Your task to perform on an android device: Empty the shopping cart on newegg.com. Search for "razer blackwidow" on newegg.com, select the first entry, and add it to the cart. Image 0: 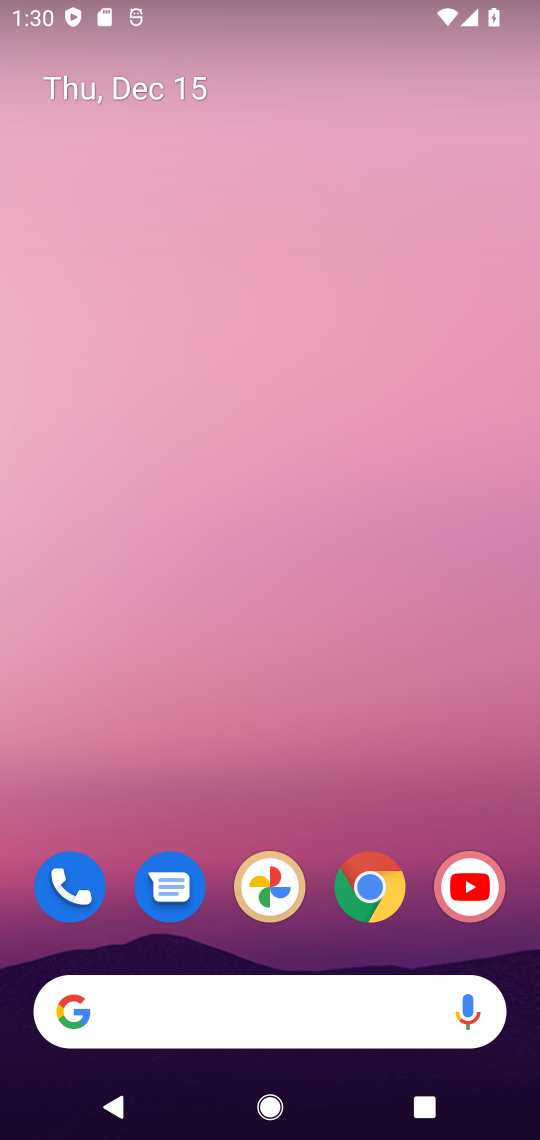
Step 0: click (379, 908)
Your task to perform on an android device: Empty the shopping cart on newegg.com. Search for "razer blackwidow" on newegg.com, select the first entry, and add it to the cart. Image 1: 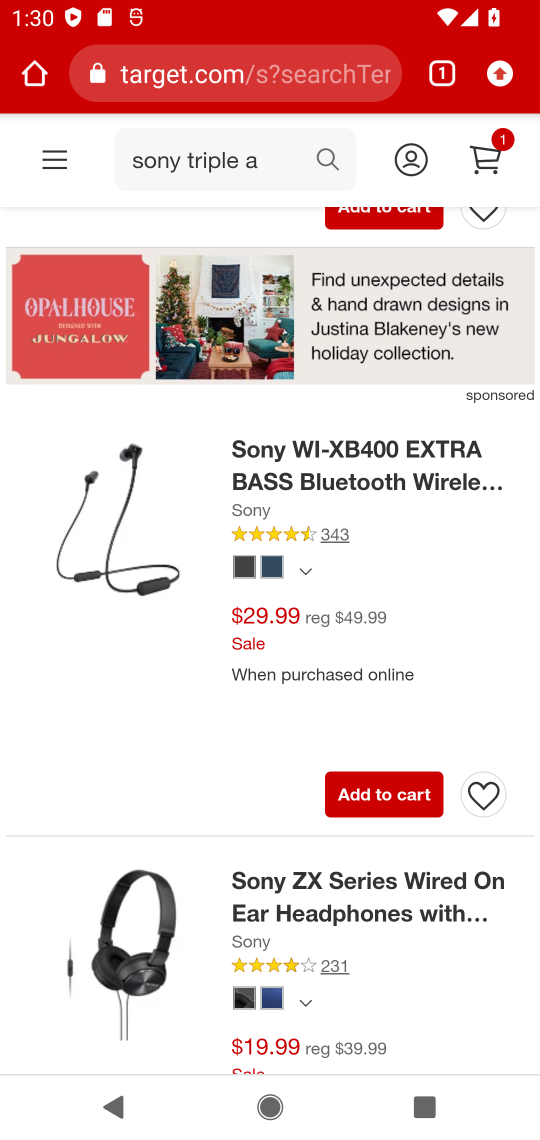
Step 1: click (210, 91)
Your task to perform on an android device: Empty the shopping cart on newegg.com. Search for "razer blackwidow" on newegg.com, select the first entry, and add it to the cart. Image 2: 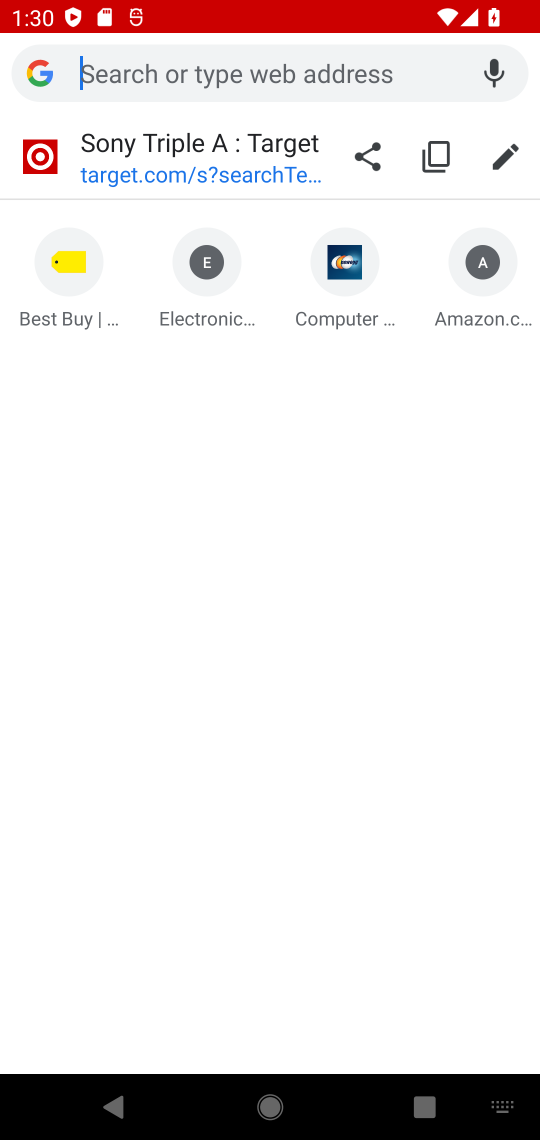
Step 2: click (332, 315)
Your task to perform on an android device: Empty the shopping cart on newegg.com. Search for "razer blackwidow" on newegg.com, select the first entry, and add it to the cart. Image 3: 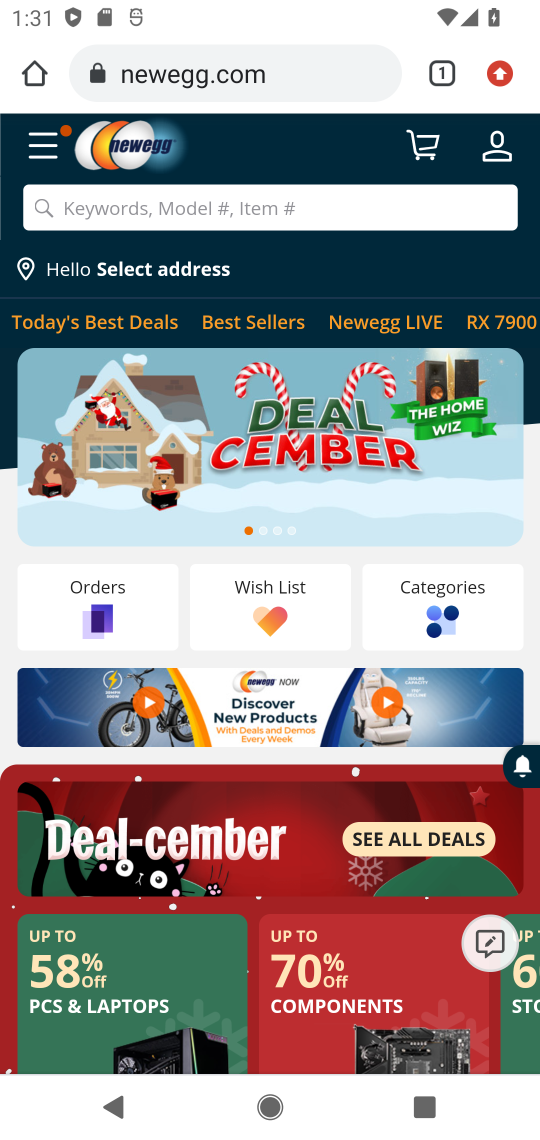
Step 3: click (412, 161)
Your task to perform on an android device: Empty the shopping cart on newegg.com. Search for "razer blackwidow" on newegg.com, select the first entry, and add it to the cart. Image 4: 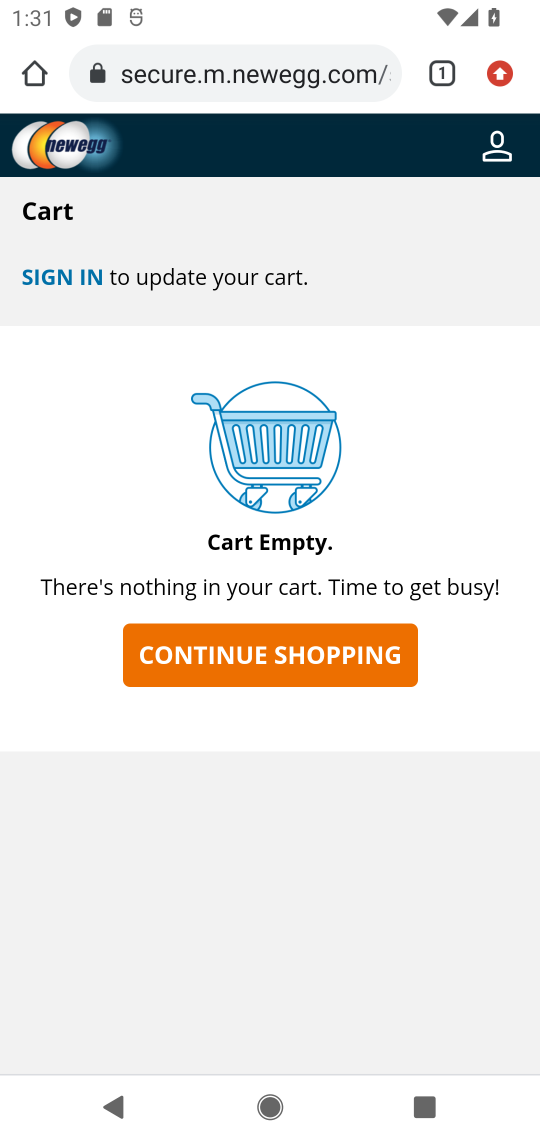
Step 4: click (298, 657)
Your task to perform on an android device: Empty the shopping cart on newegg.com. Search for "razer blackwidow" on newegg.com, select the first entry, and add it to the cart. Image 5: 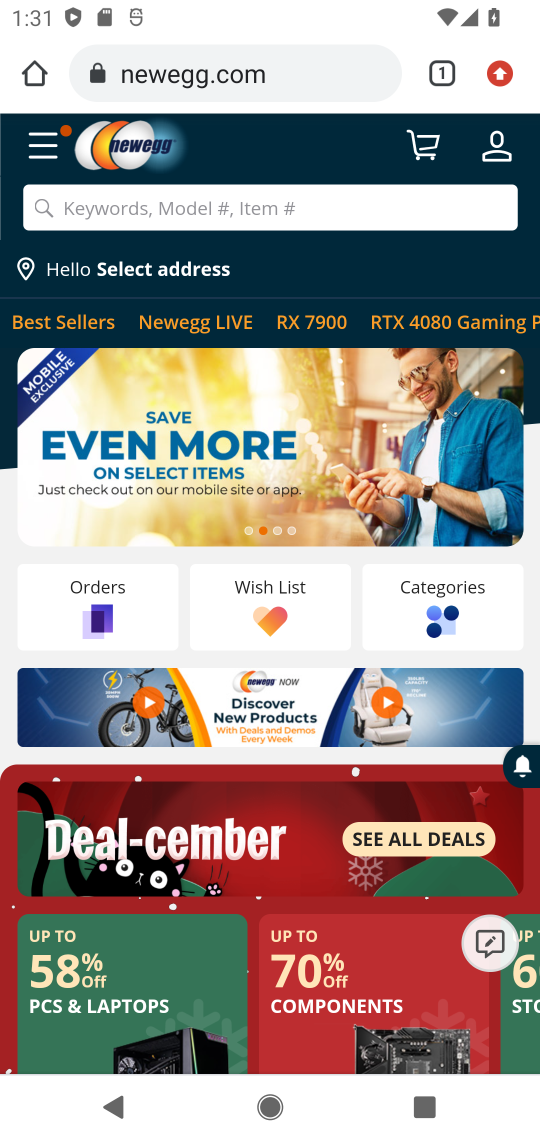
Step 5: type "razer blackwidow"
Your task to perform on an android device: Empty the shopping cart on newegg.com. Search for "razer blackwidow" on newegg.com, select the first entry, and add it to the cart. Image 6: 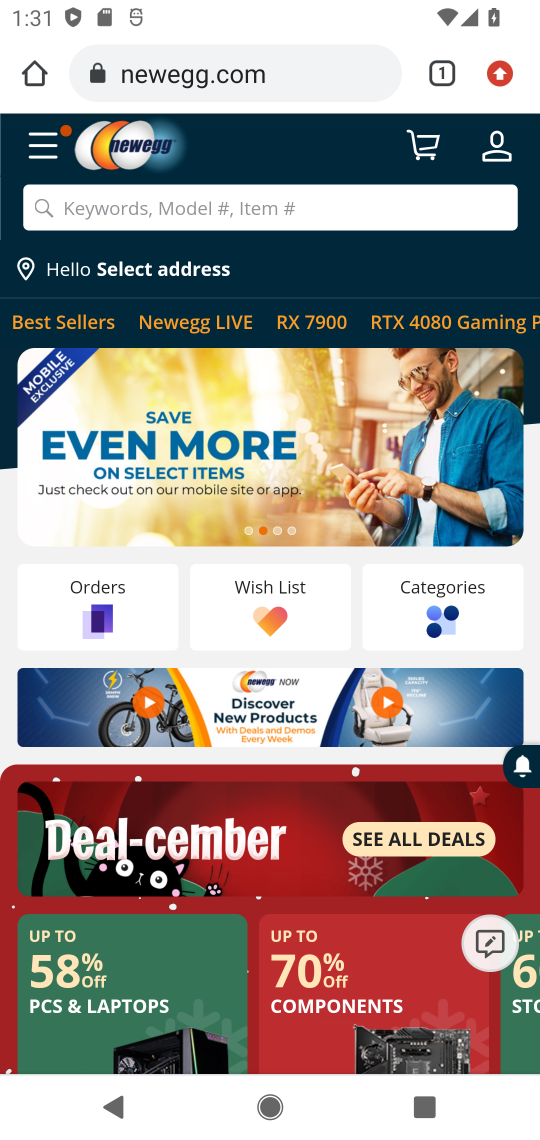
Step 6: click (171, 207)
Your task to perform on an android device: Empty the shopping cart on newegg.com. Search for "razer blackwidow" on newegg.com, select the first entry, and add it to the cart. Image 7: 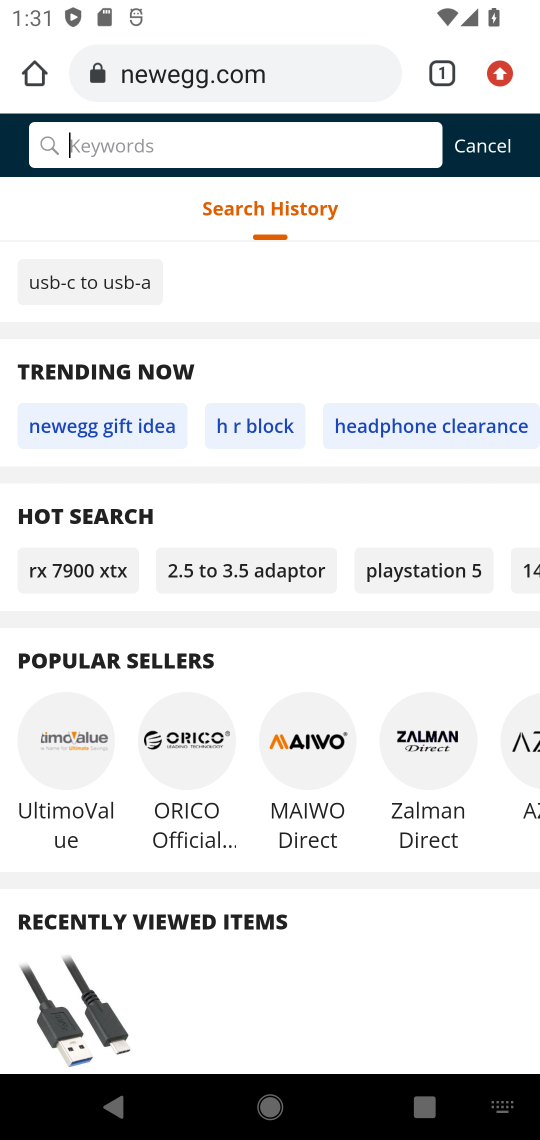
Step 7: type "razer blackwidow"
Your task to perform on an android device: Empty the shopping cart on newegg.com. Search for "razer blackwidow" on newegg.com, select the first entry, and add it to the cart. Image 8: 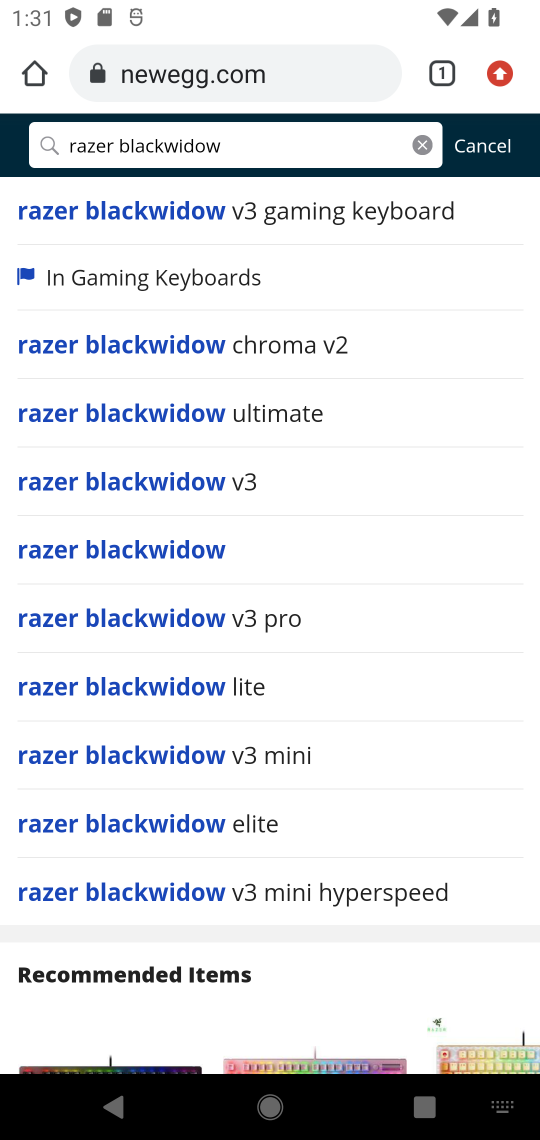
Step 8: click (126, 545)
Your task to perform on an android device: Empty the shopping cart on newegg.com. Search for "razer blackwidow" on newegg.com, select the first entry, and add it to the cart. Image 9: 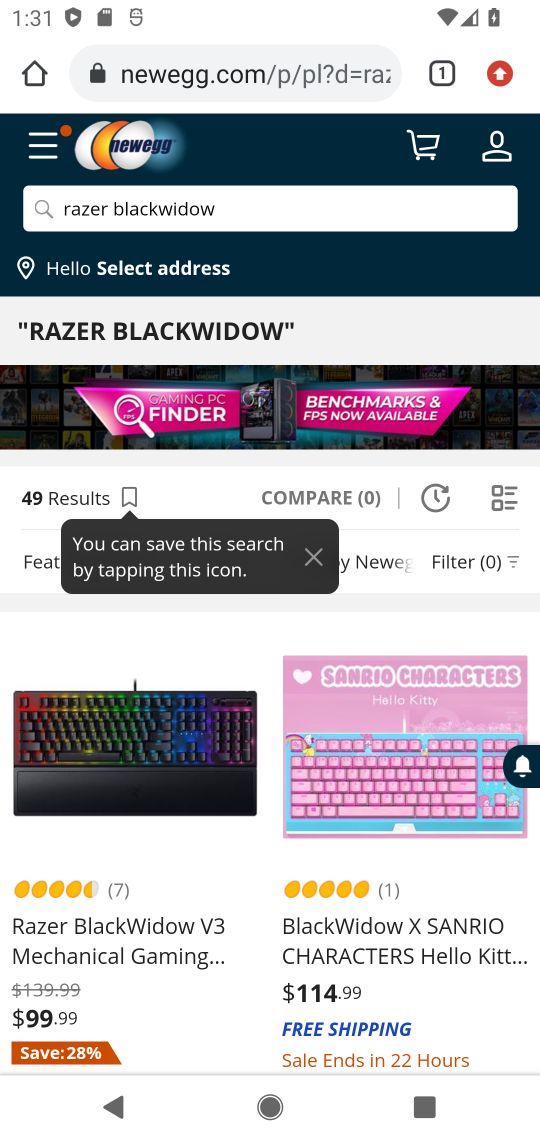
Step 9: drag from (137, 710) to (161, 470)
Your task to perform on an android device: Empty the shopping cart on newegg.com. Search for "razer blackwidow" on newegg.com, select the first entry, and add it to the cart. Image 10: 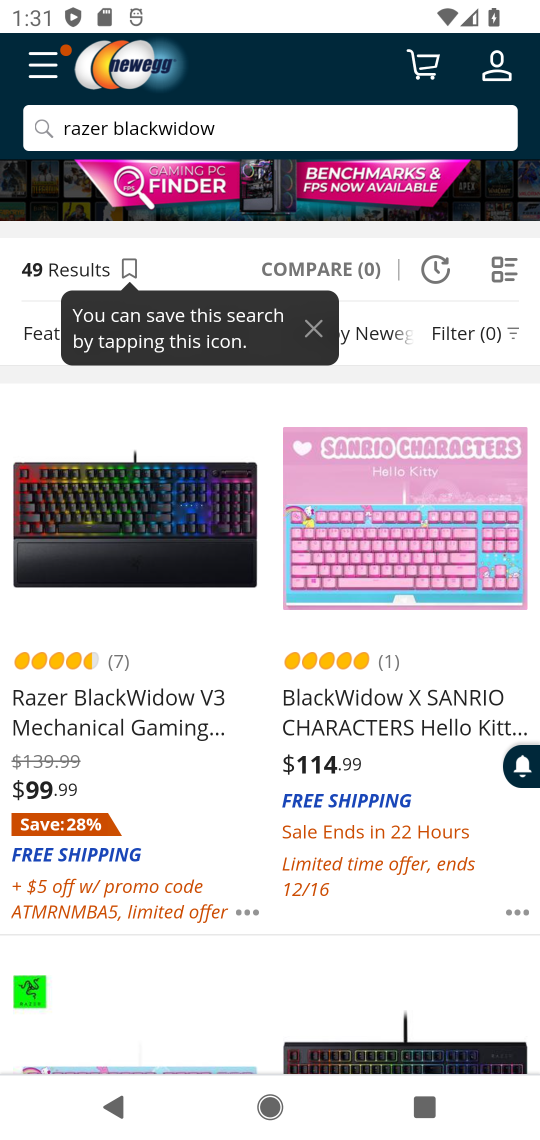
Step 10: click (126, 721)
Your task to perform on an android device: Empty the shopping cart on newegg.com. Search for "razer blackwidow" on newegg.com, select the first entry, and add it to the cart. Image 11: 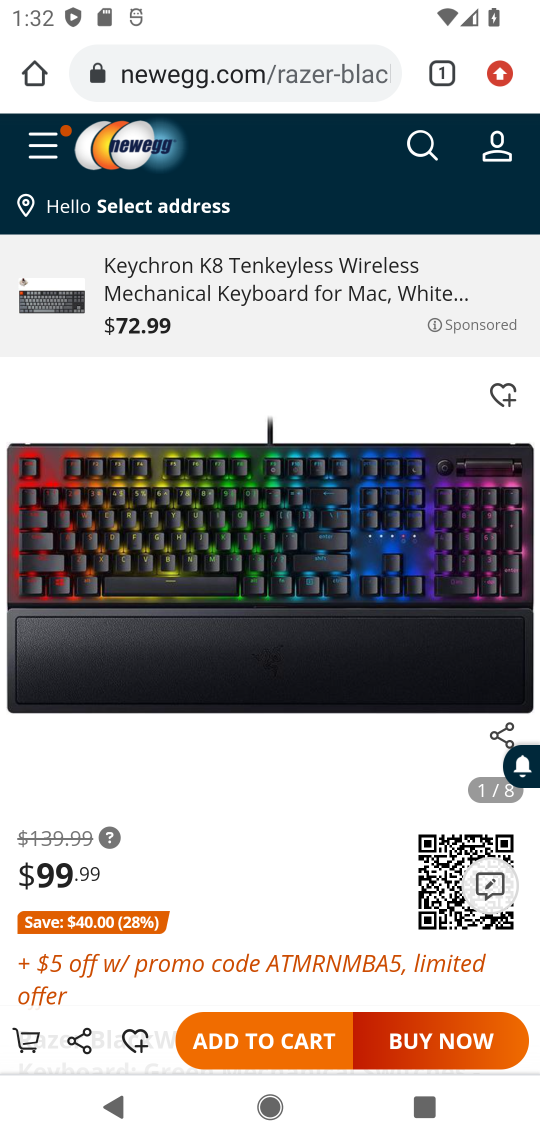
Step 11: click (235, 1046)
Your task to perform on an android device: Empty the shopping cart on newegg.com. Search for "razer blackwidow" on newegg.com, select the first entry, and add it to the cart. Image 12: 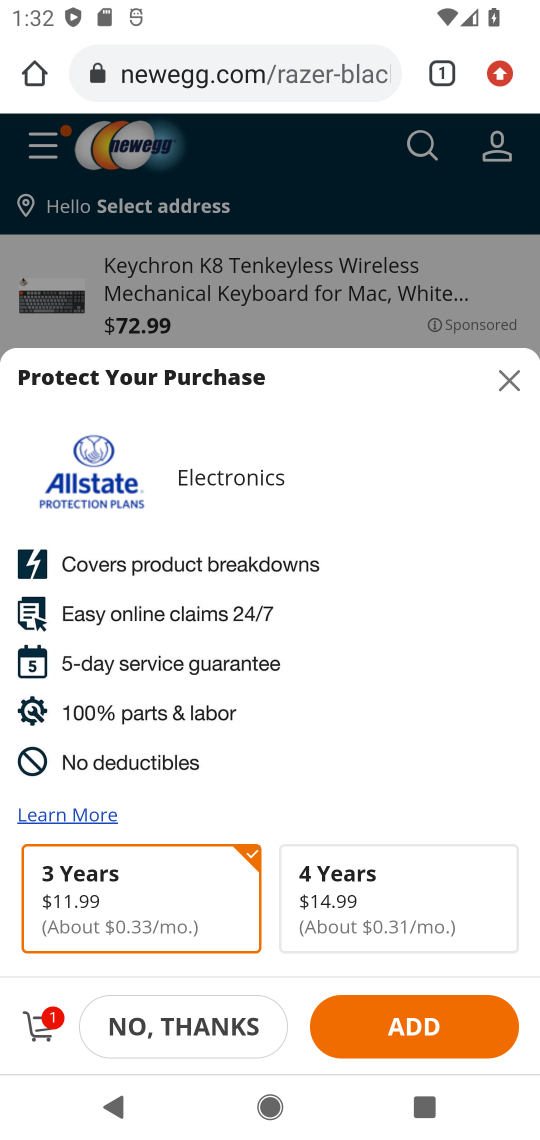
Step 12: task complete